Your task to perform on an android device: turn off javascript in the chrome app Image 0: 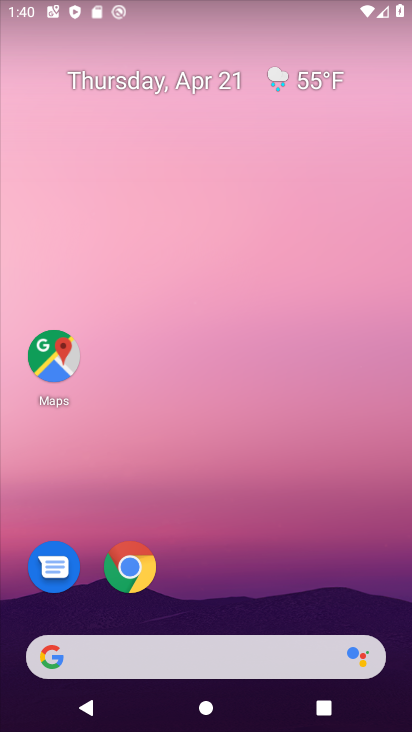
Step 0: click (126, 568)
Your task to perform on an android device: turn off javascript in the chrome app Image 1: 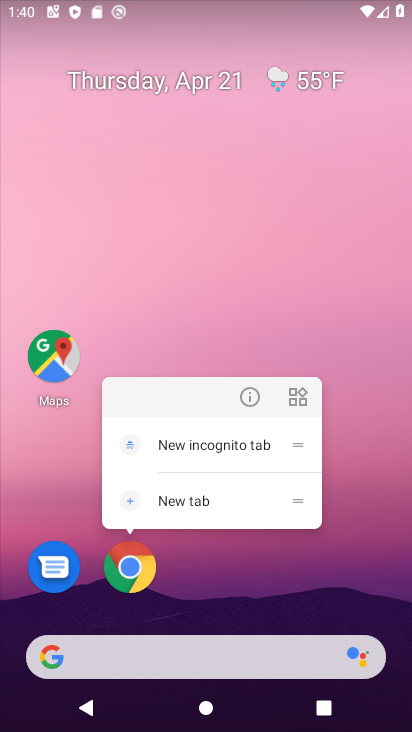
Step 1: click (229, 553)
Your task to perform on an android device: turn off javascript in the chrome app Image 2: 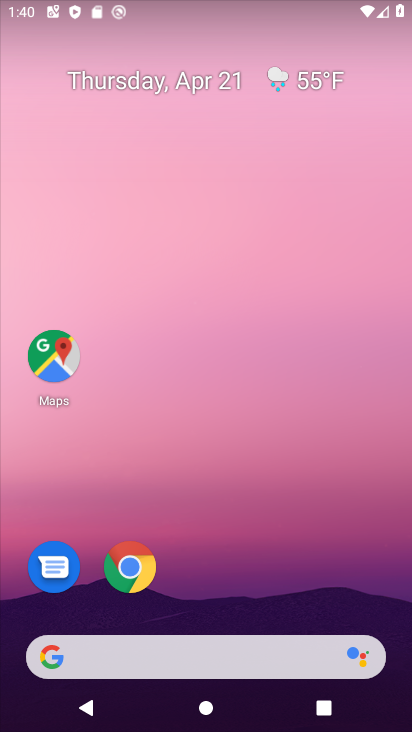
Step 2: click (124, 563)
Your task to perform on an android device: turn off javascript in the chrome app Image 3: 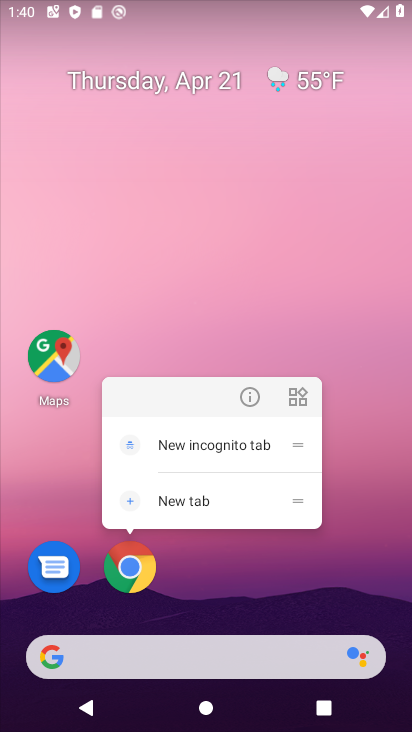
Step 3: click (131, 560)
Your task to perform on an android device: turn off javascript in the chrome app Image 4: 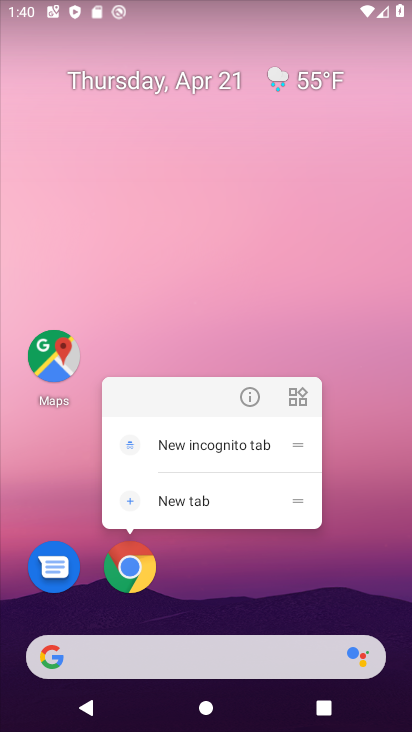
Step 4: click (172, 572)
Your task to perform on an android device: turn off javascript in the chrome app Image 5: 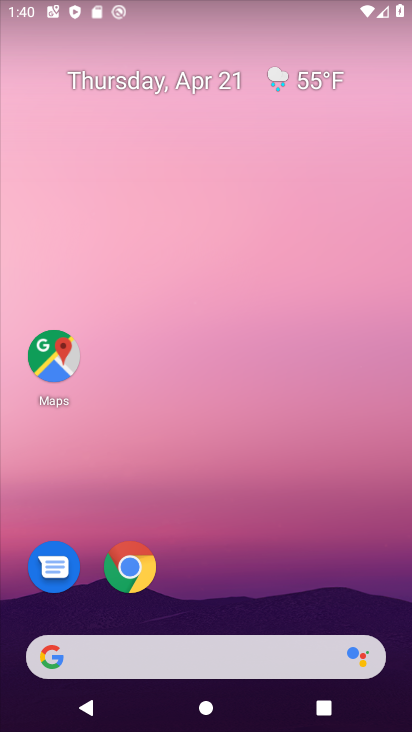
Step 5: click (378, 520)
Your task to perform on an android device: turn off javascript in the chrome app Image 6: 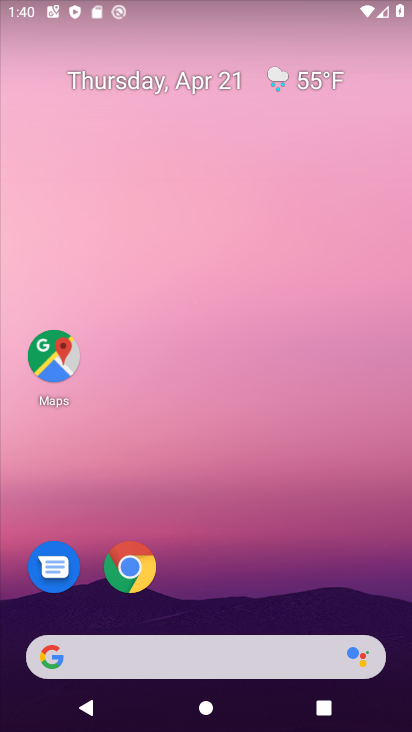
Step 6: click (126, 561)
Your task to perform on an android device: turn off javascript in the chrome app Image 7: 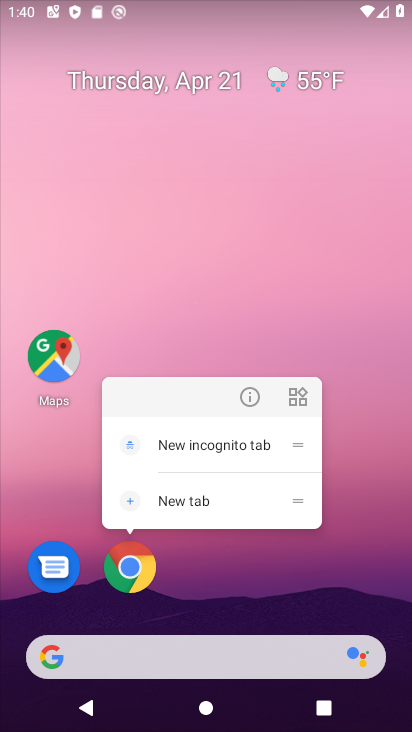
Step 7: click (126, 561)
Your task to perform on an android device: turn off javascript in the chrome app Image 8: 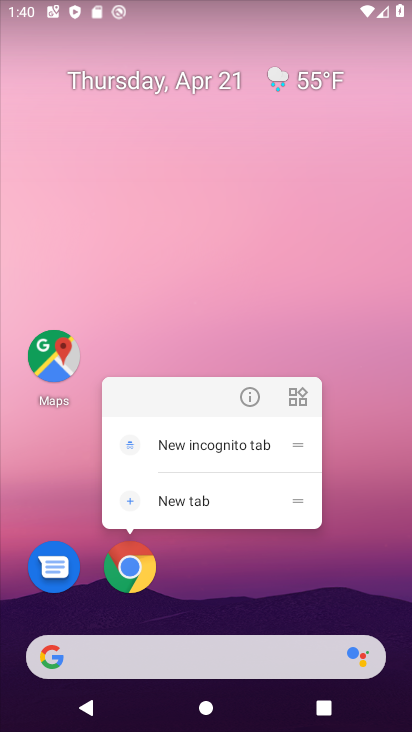
Step 8: click (126, 561)
Your task to perform on an android device: turn off javascript in the chrome app Image 9: 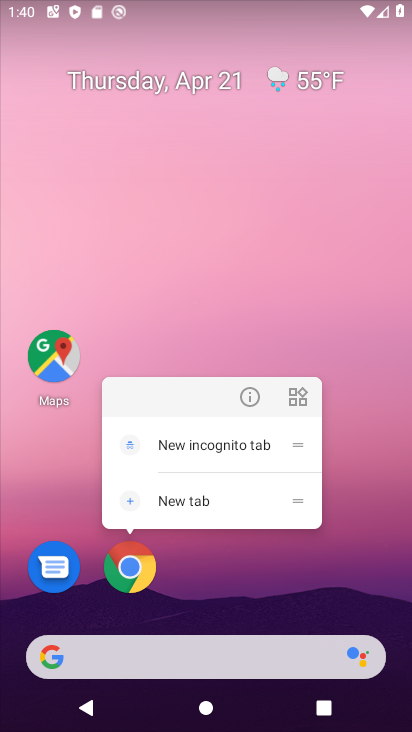
Step 9: drag from (221, 578) to (185, 80)
Your task to perform on an android device: turn off javascript in the chrome app Image 10: 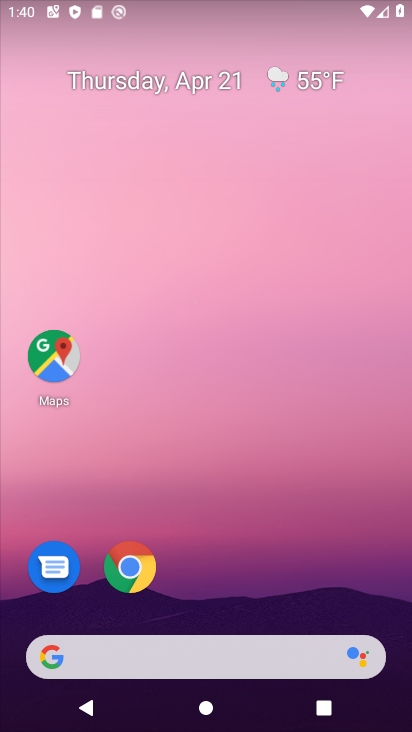
Step 10: drag from (204, 581) to (220, 120)
Your task to perform on an android device: turn off javascript in the chrome app Image 11: 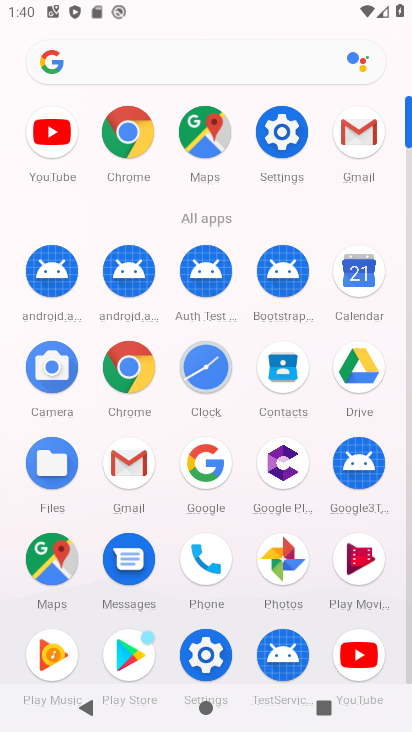
Step 11: click (125, 366)
Your task to perform on an android device: turn off javascript in the chrome app Image 12: 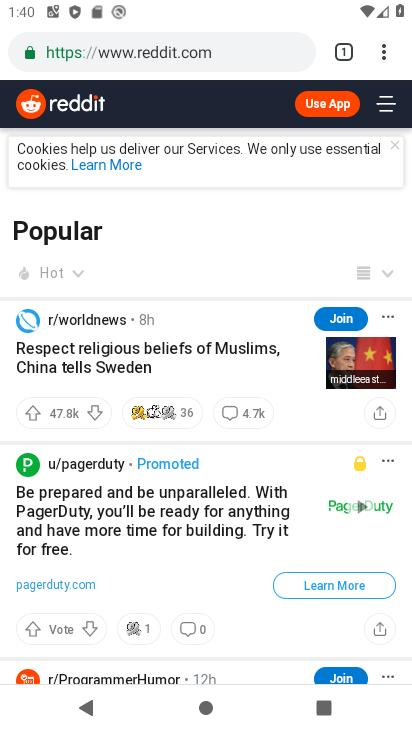
Step 12: click (381, 49)
Your task to perform on an android device: turn off javascript in the chrome app Image 13: 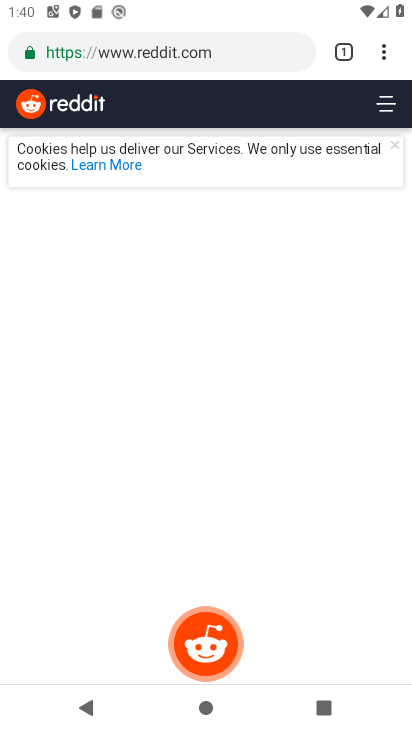
Step 13: click (377, 53)
Your task to perform on an android device: turn off javascript in the chrome app Image 14: 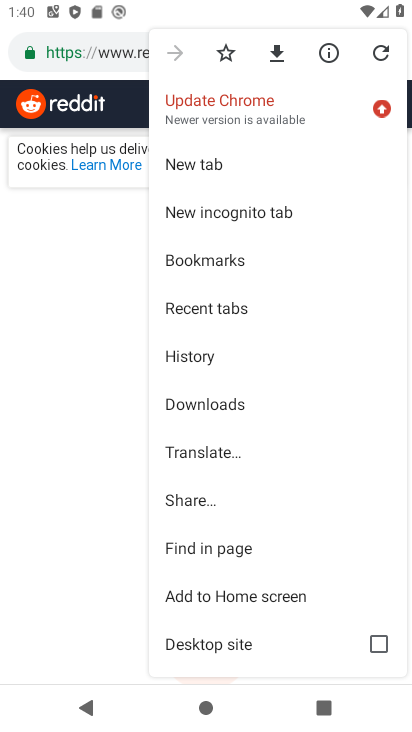
Step 14: drag from (246, 621) to (255, 331)
Your task to perform on an android device: turn off javascript in the chrome app Image 15: 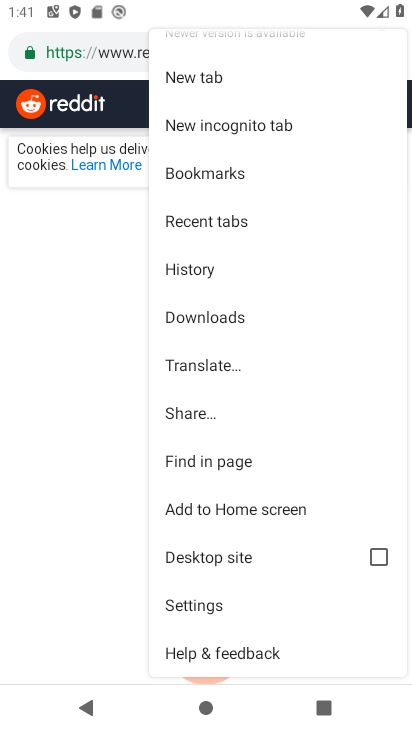
Step 15: click (232, 603)
Your task to perform on an android device: turn off javascript in the chrome app Image 16: 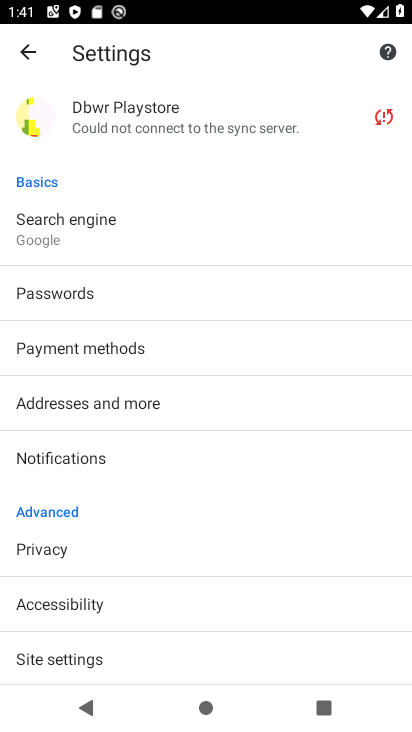
Step 16: click (130, 657)
Your task to perform on an android device: turn off javascript in the chrome app Image 17: 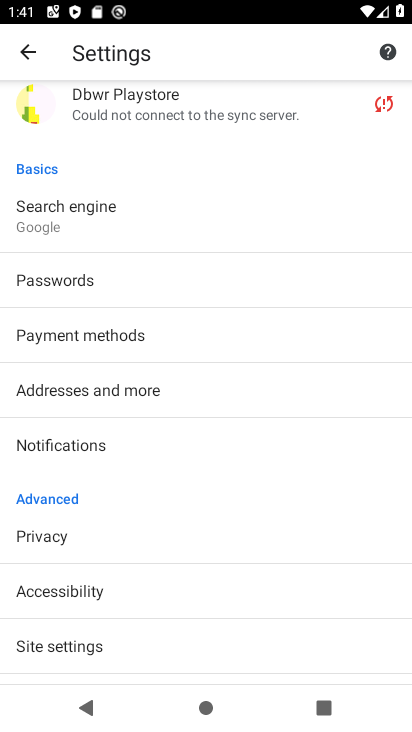
Step 17: click (129, 636)
Your task to perform on an android device: turn off javascript in the chrome app Image 18: 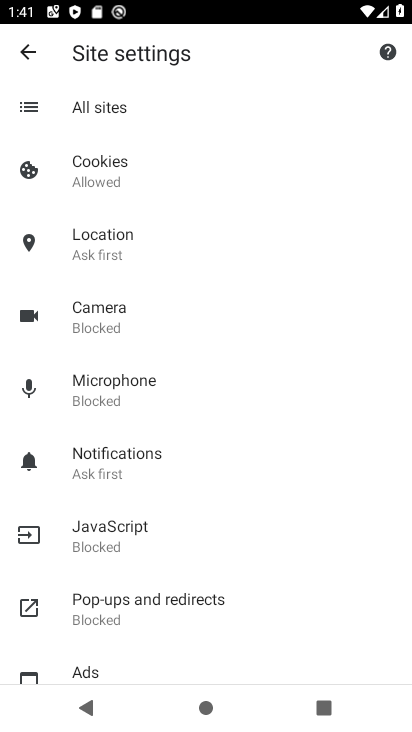
Step 18: click (177, 541)
Your task to perform on an android device: turn off javascript in the chrome app Image 19: 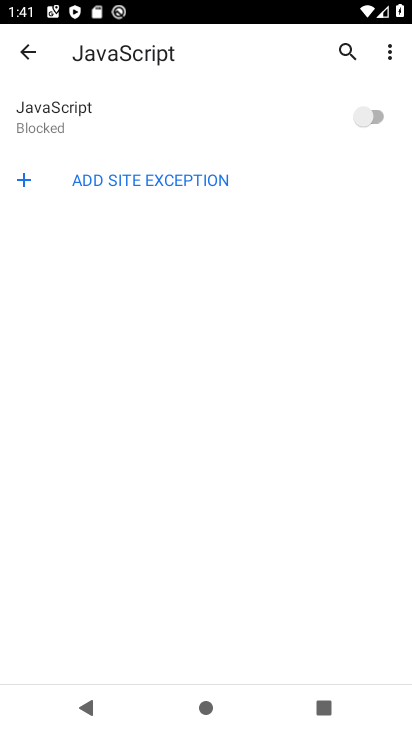
Step 19: task complete